Your task to perform on an android device: Search for "alienware area 51" on walmart.com, select the first entry, add it to the cart, then select checkout. Image 0: 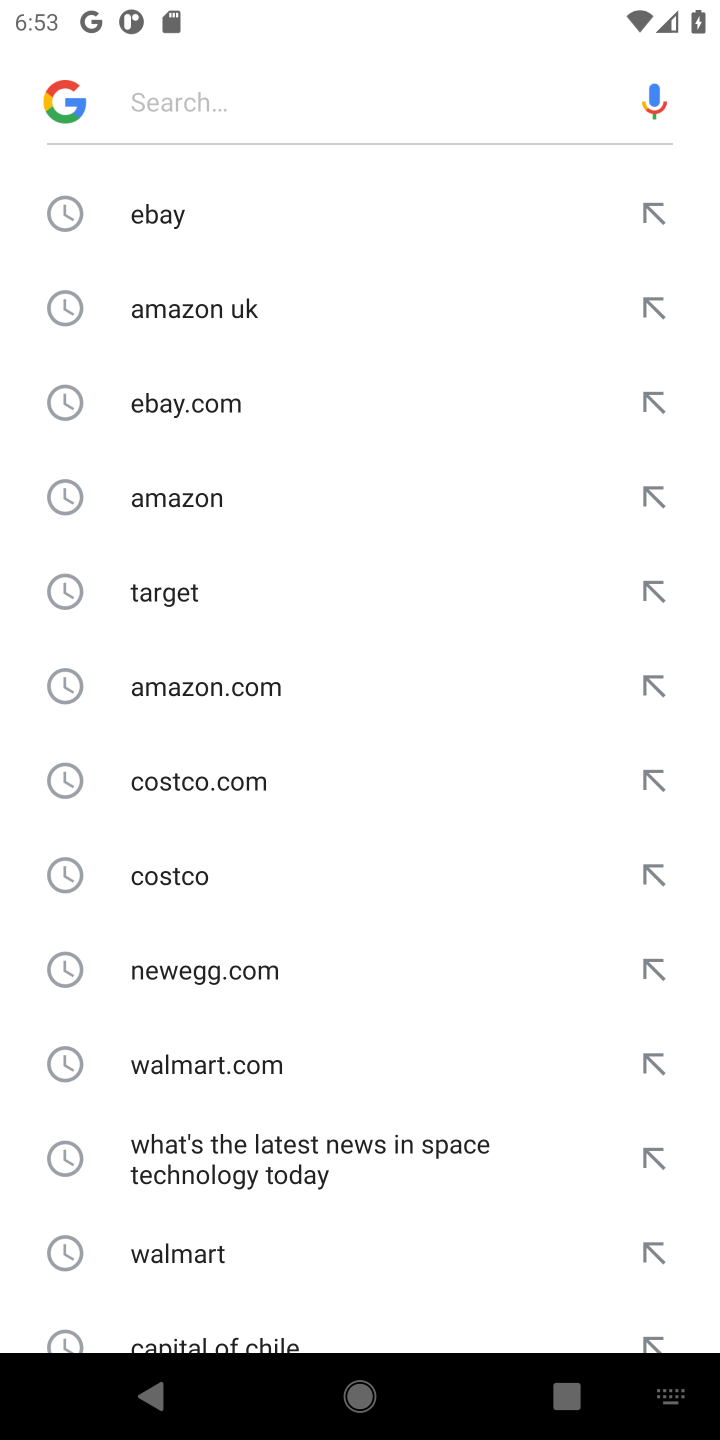
Step 0: click (246, 104)
Your task to perform on an android device: Search for "alienware area 51" on walmart.com, select the first entry, add it to the cart, then select checkout. Image 1: 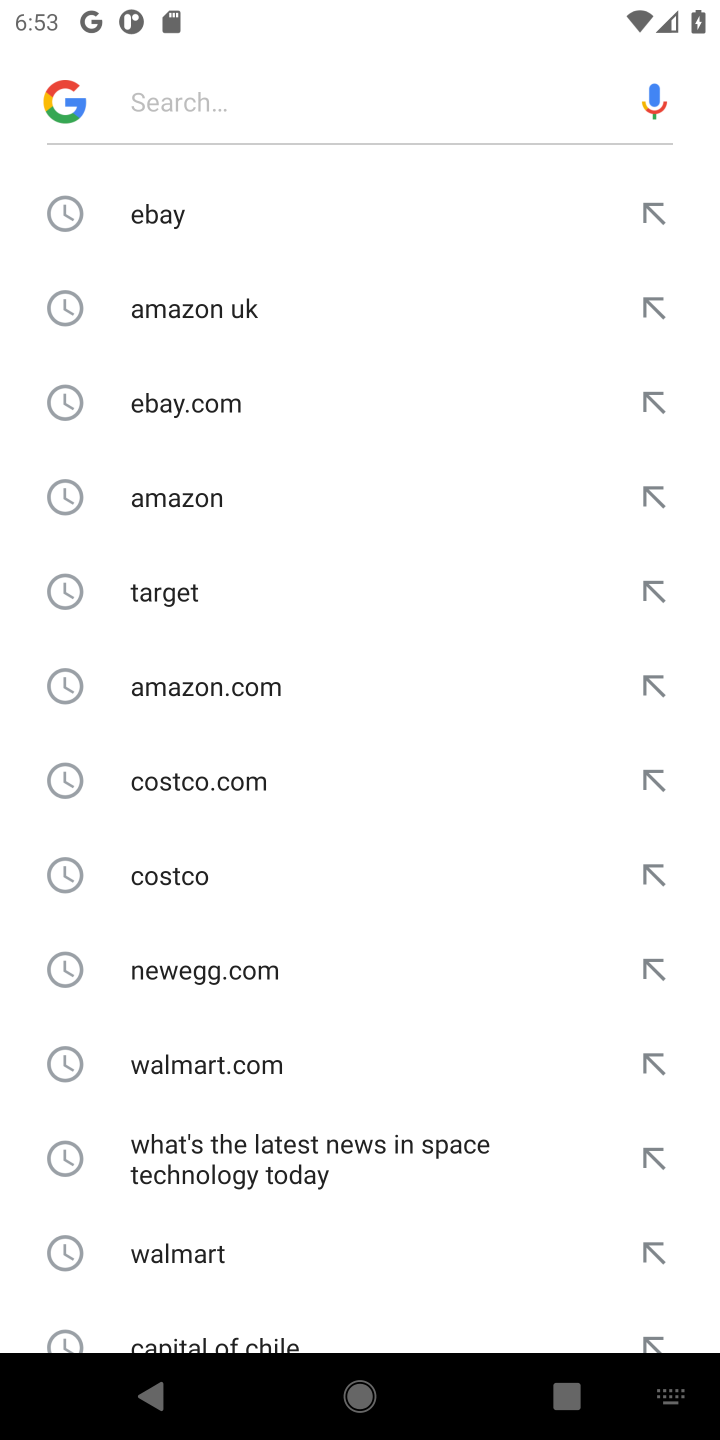
Step 1: type "walmart.com"
Your task to perform on an android device: Search for "alienware area 51" on walmart.com, select the first entry, add it to the cart, then select checkout. Image 2: 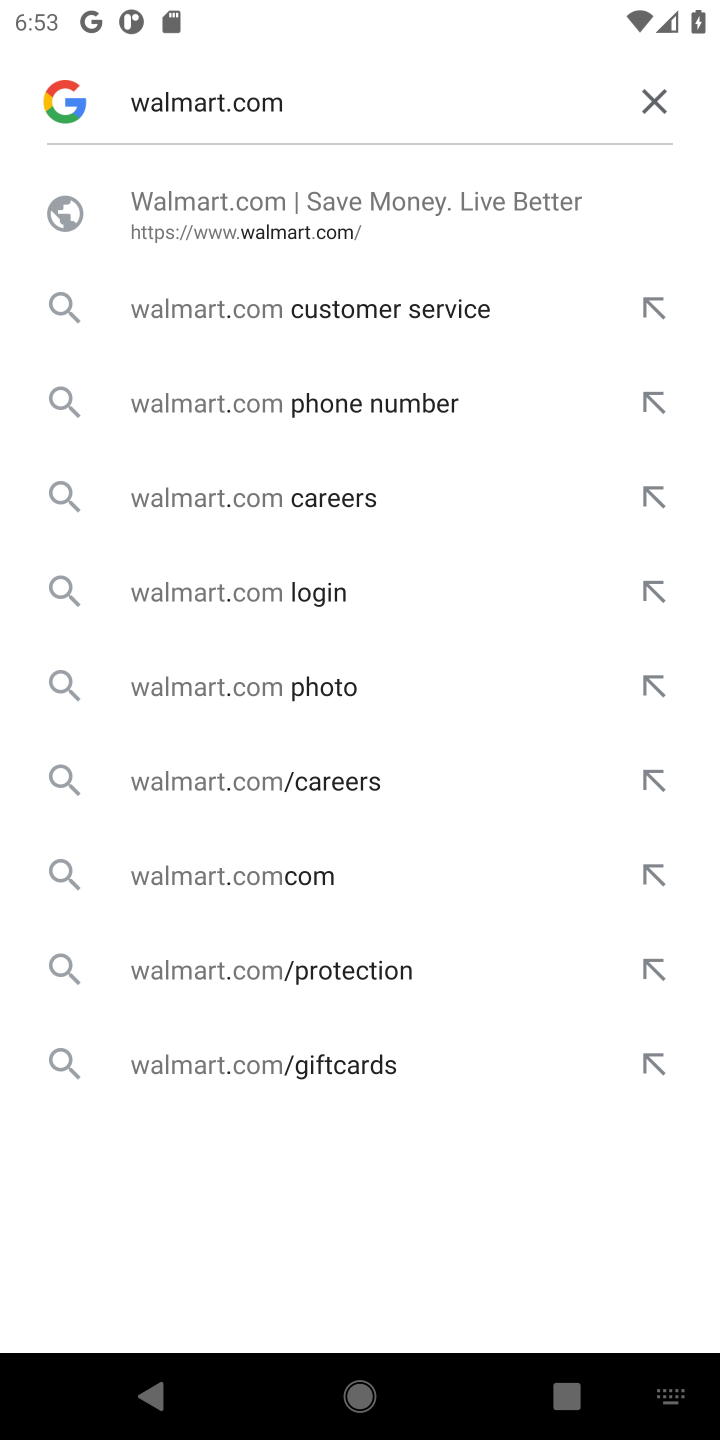
Step 2: click (212, 207)
Your task to perform on an android device: Search for "alienware area 51" on walmart.com, select the first entry, add it to the cart, then select checkout. Image 3: 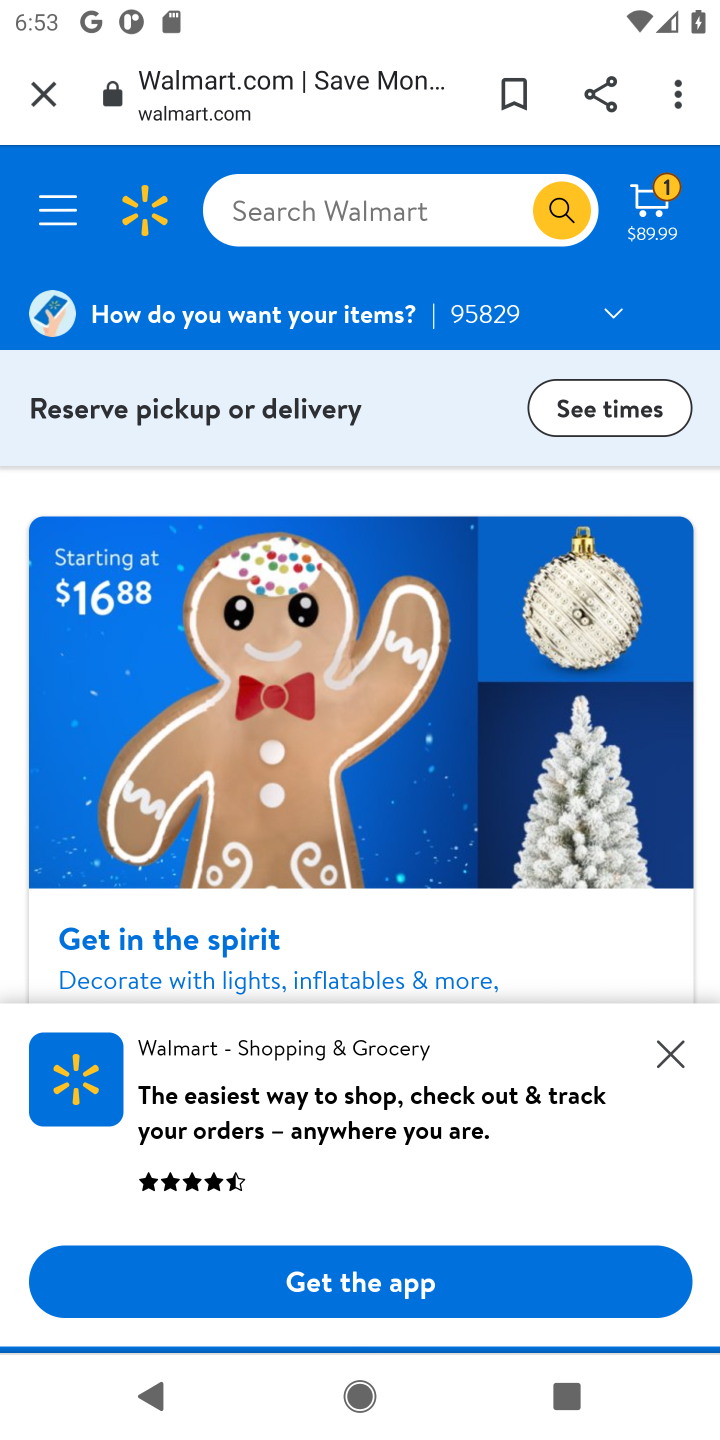
Step 3: click (284, 211)
Your task to perform on an android device: Search for "alienware area 51" on walmart.com, select the first entry, add it to the cart, then select checkout. Image 4: 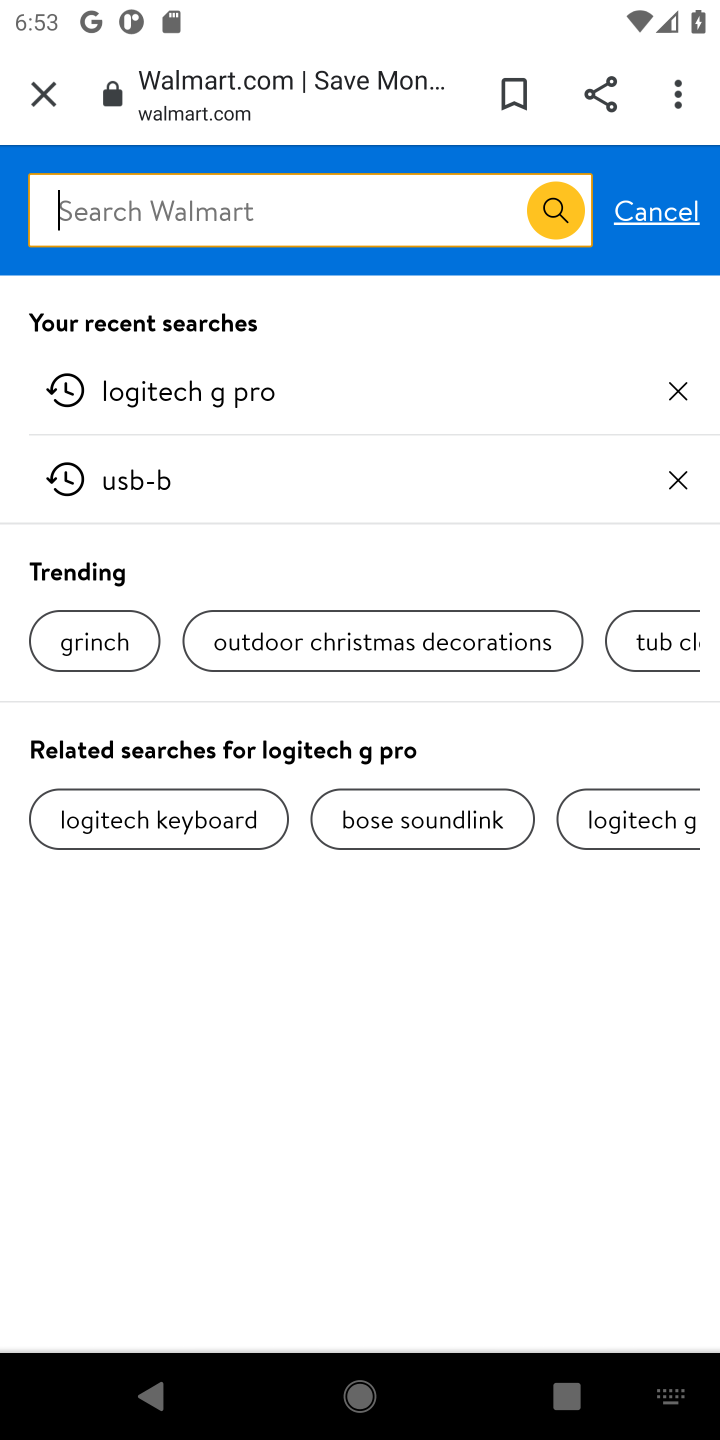
Step 4: type "alienware area 51"
Your task to perform on an android device: Search for "alienware area 51" on walmart.com, select the first entry, add it to the cart, then select checkout. Image 5: 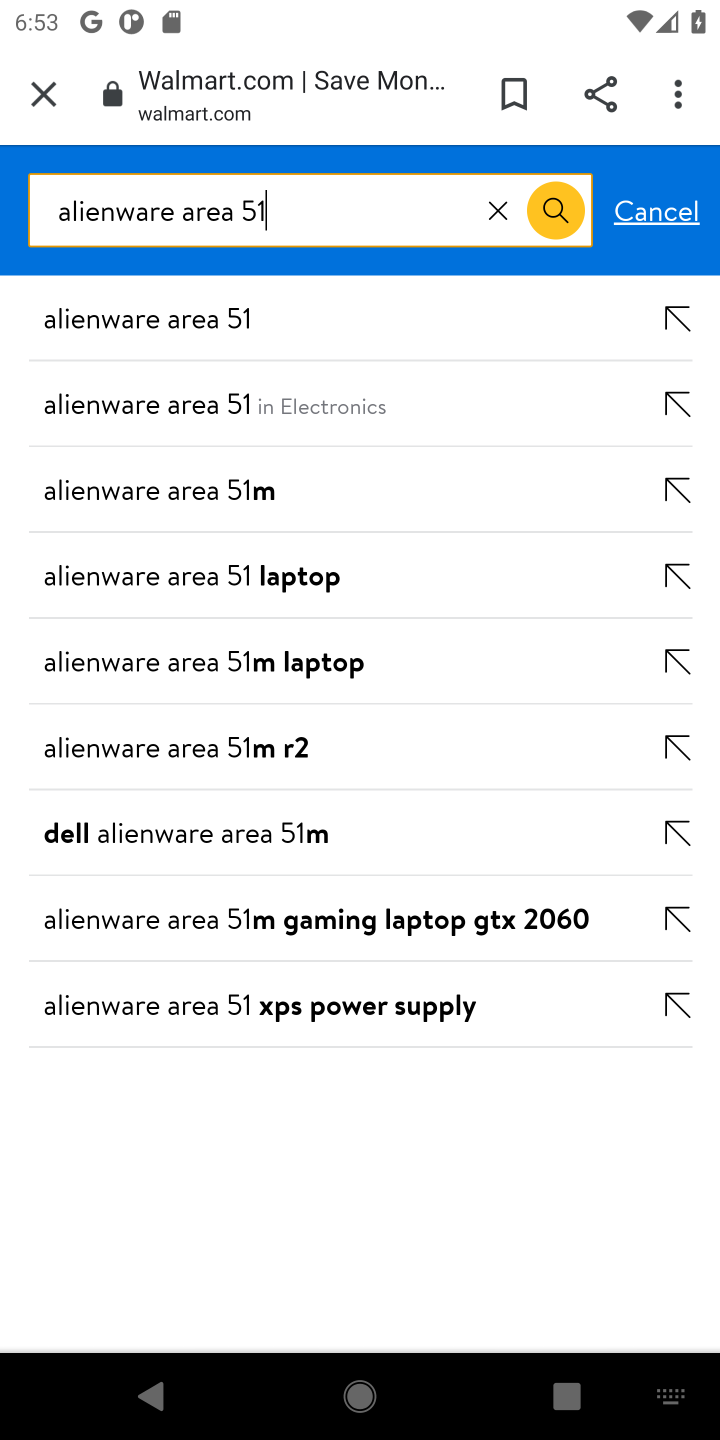
Step 5: click (206, 321)
Your task to perform on an android device: Search for "alienware area 51" on walmart.com, select the first entry, add it to the cart, then select checkout. Image 6: 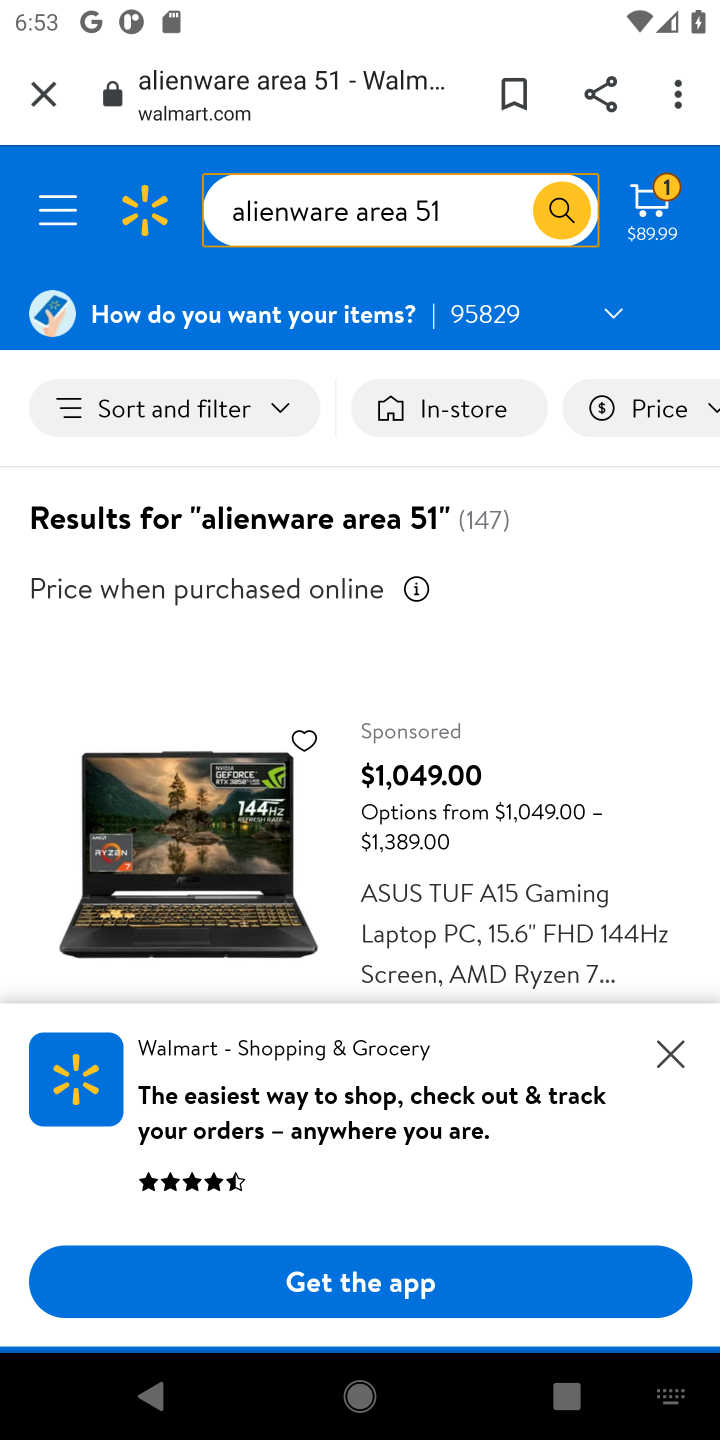
Step 6: task complete